Your task to perform on an android device: turn on the 12-hour format for clock Image 0: 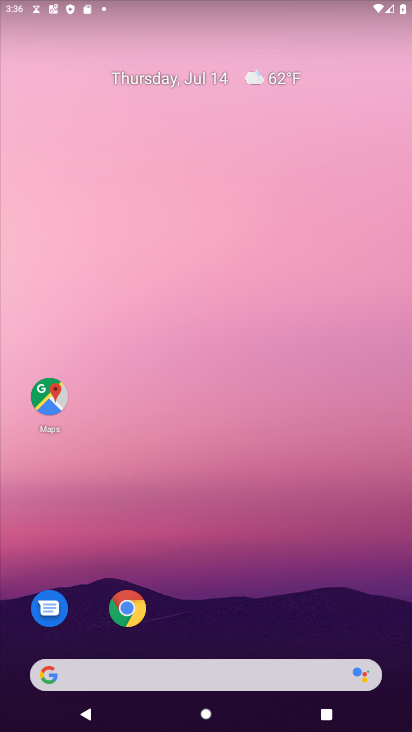
Step 0: drag from (188, 664) to (64, 6)
Your task to perform on an android device: turn on the 12-hour format for clock Image 1: 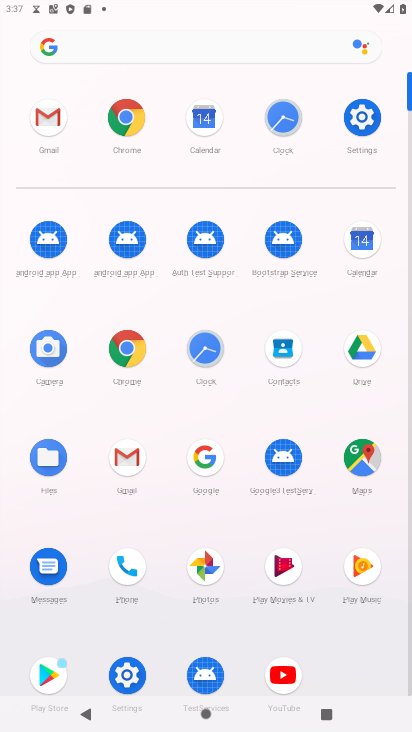
Step 1: click (372, 107)
Your task to perform on an android device: turn on the 12-hour format for clock Image 2: 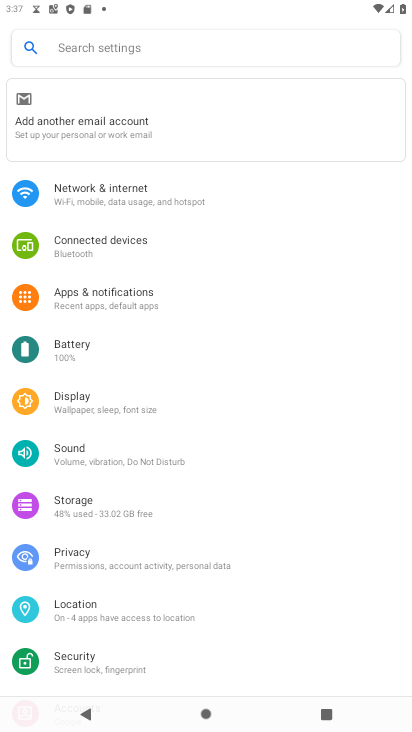
Step 2: drag from (164, 458) to (158, 24)
Your task to perform on an android device: turn on the 12-hour format for clock Image 3: 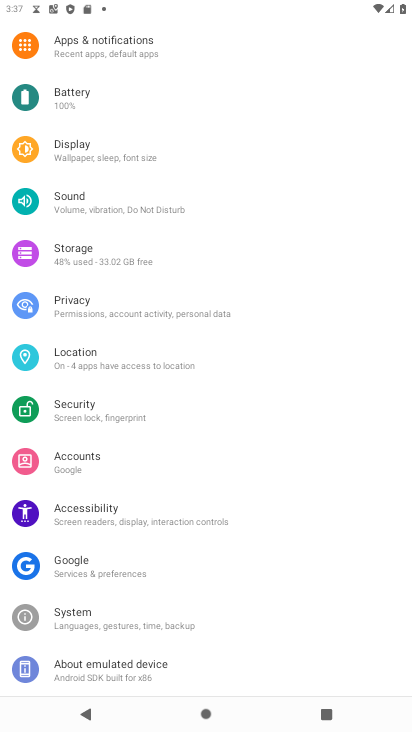
Step 3: click (117, 622)
Your task to perform on an android device: turn on the 12-hour format for clock Image 4: 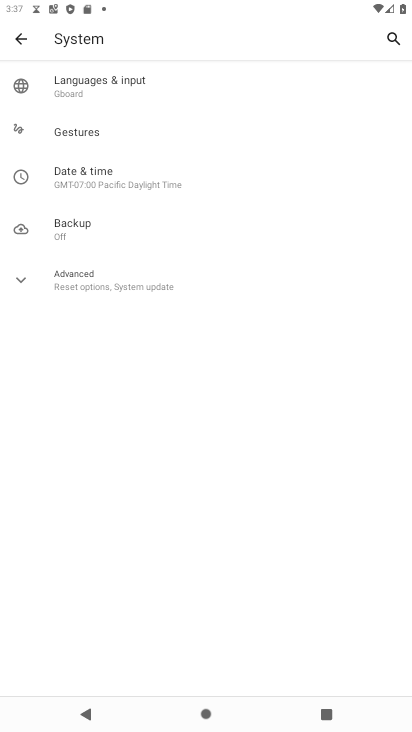
Step 4: click (114, 180)
Your task to perform on an android device: turn on the 12-hour format for clock Image 5: 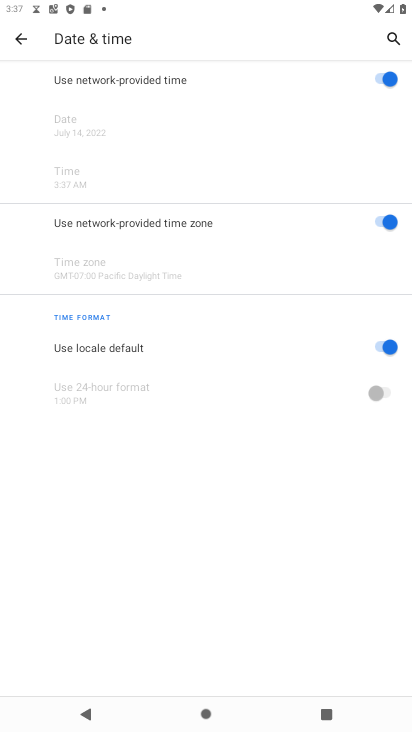
Step 5: task complete